Your task to perform on an android device: Open wifi settings Image 0: 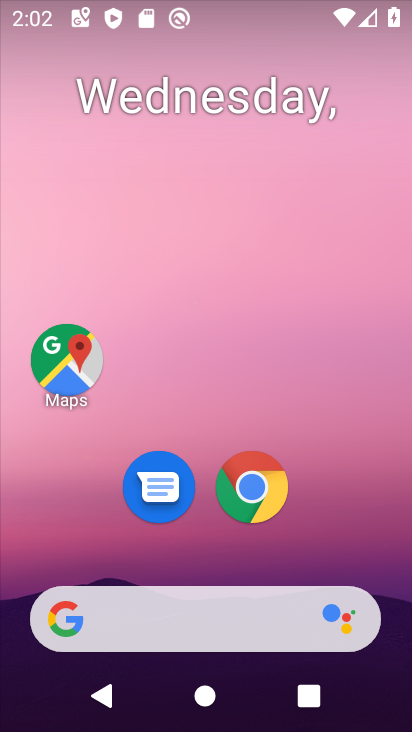
Step 0: drag from (322, 521) to (238, 168)
Your task to perform on an android device: Open wifi settings Image 1: 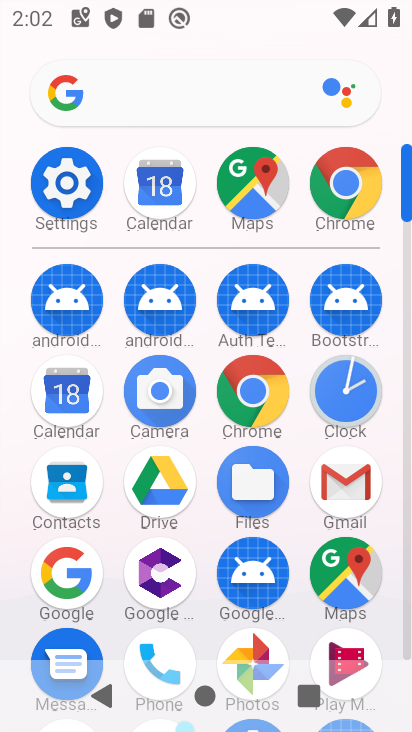
Step 1: click (58, 180)
Your task to perform on an android device: Open wifi settings Image 2: 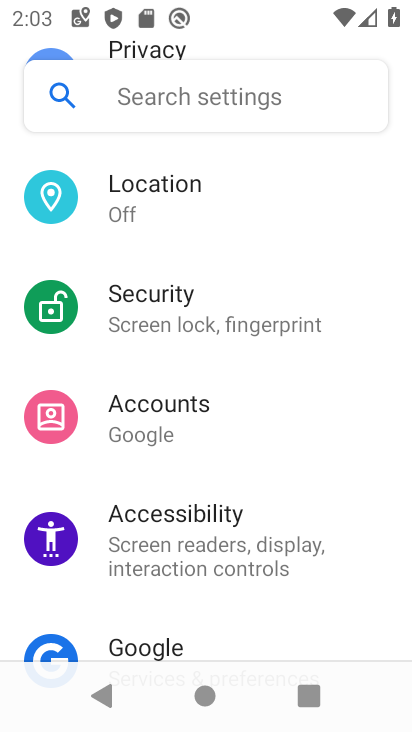
Step 2: drag from (201, 208) to (272, 718)
Your task to perform on an android device: Open wifi settings Image 3: 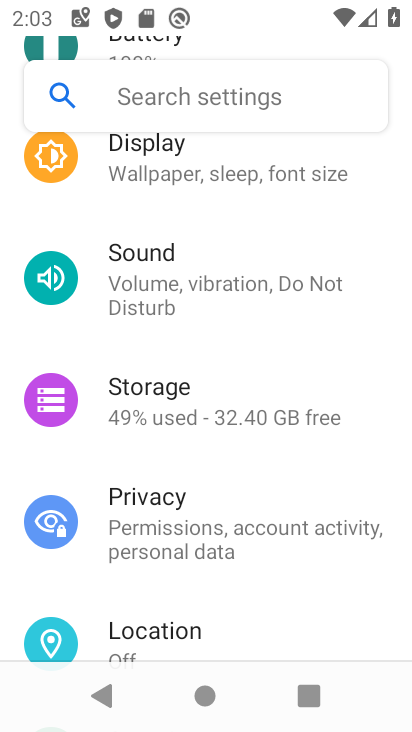
Step 3: drag from (193, 221) to (247, 551)
Your task to perform on an android device: Open wifi settings Image 4: 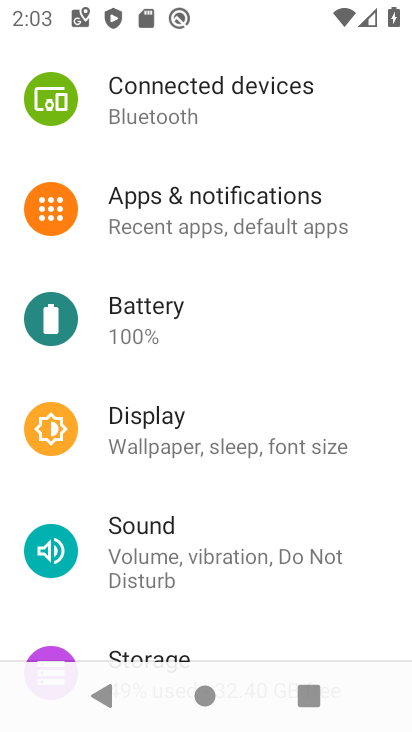
Step 4: drag from (191, 259) to (189, 679)
Your task to perform on an android device: Open wifi settings Image 5: 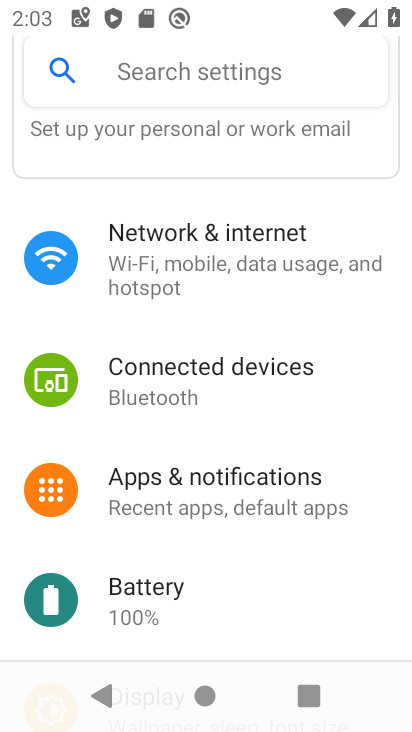
Step 5: click (147, 263)
Your task to perform on an android device: Open wifi settings Image 6: 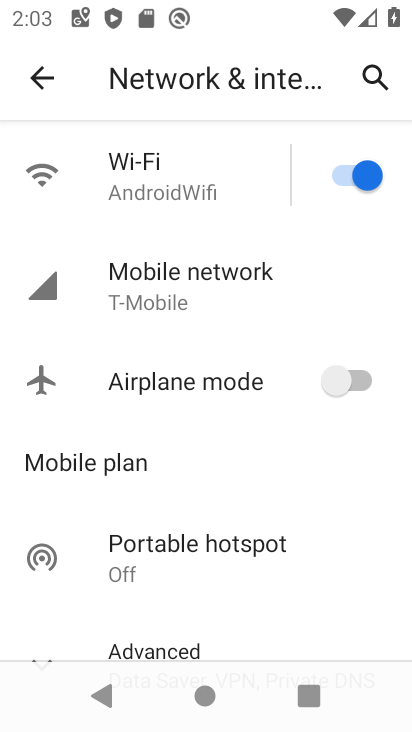
Step 6: click (174, 176)
Your task to perform on an android device: Open wifi settings Image 7: 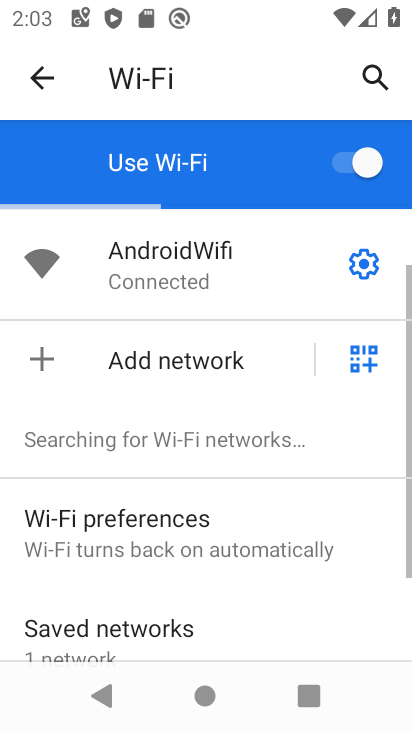
Step 7: task complete